Your task to perform on an android device: create a new album in the google photos Image 0: 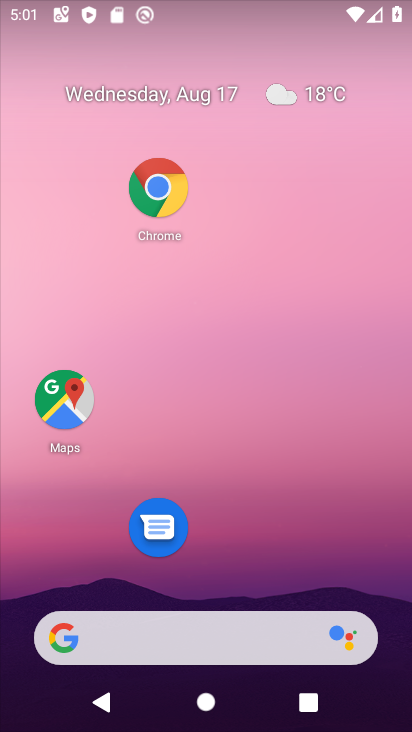
Step 0: drag from (226, 358) to (207, 200)
Your task to perform on an android device: create a new album in the google photos Image 1: 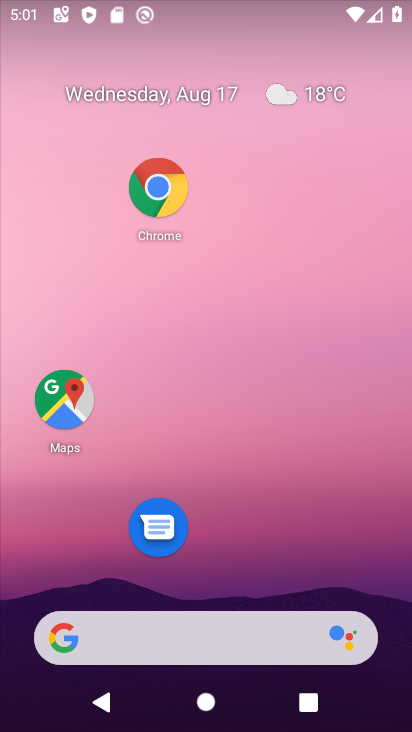
Step 1: drag from (190, 569) to (248, 105)
Your task to perform on an android device: create a new album in the google photos Image 2: 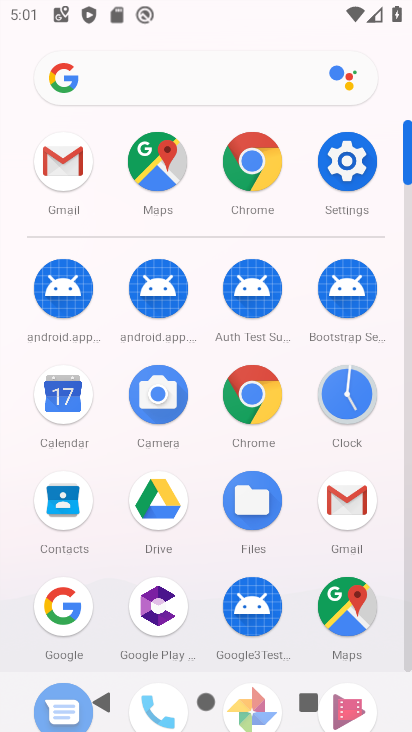
Step 2: drag from (202, 584) to (199, 114)
Your task to perform on an android device: create a new album in the google photos Image 3: 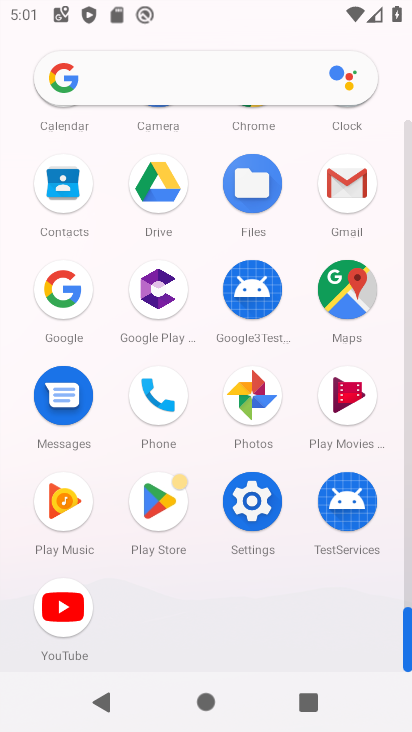
Step 3: click (260, 459)
Your task to perform on an android device: create a new album in the google photos Image 4: 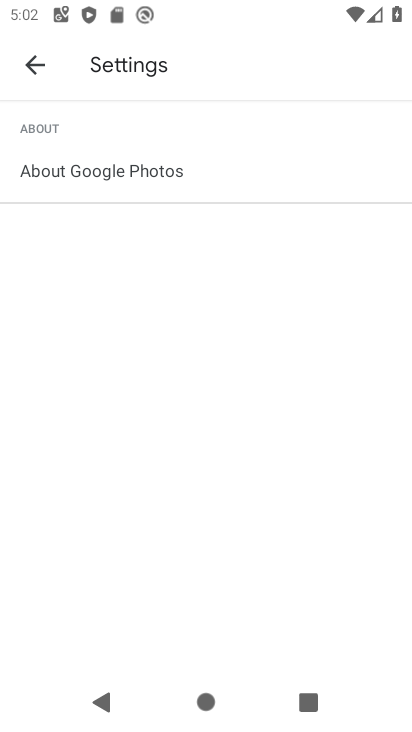
Step 4: click (25, 79)
Your task to perform on an android device: create a new album in the google photos Image 5: 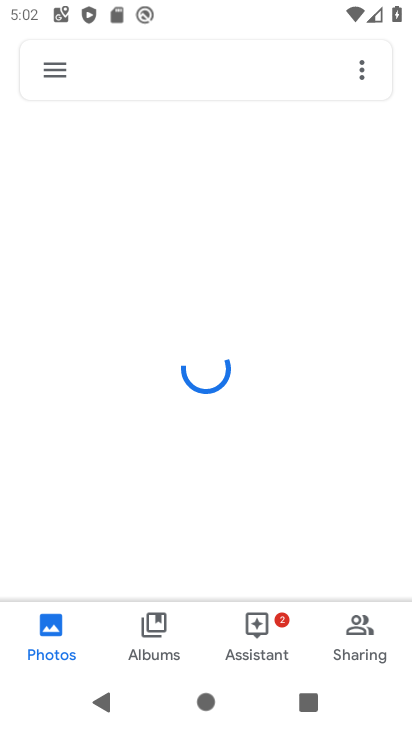
Step 5: task complete